Your task to perform on an android device: turn notification dots on Image 0: 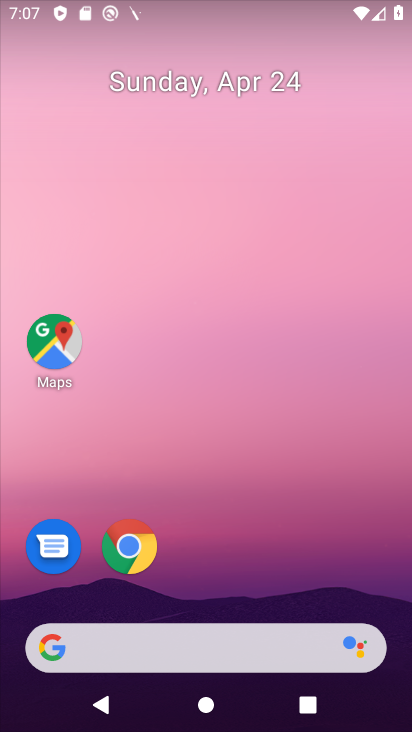
Step 0: drag from (267, 559) to (216, 4)
Your task to perform on an android device: turn notification dots on Image 1: 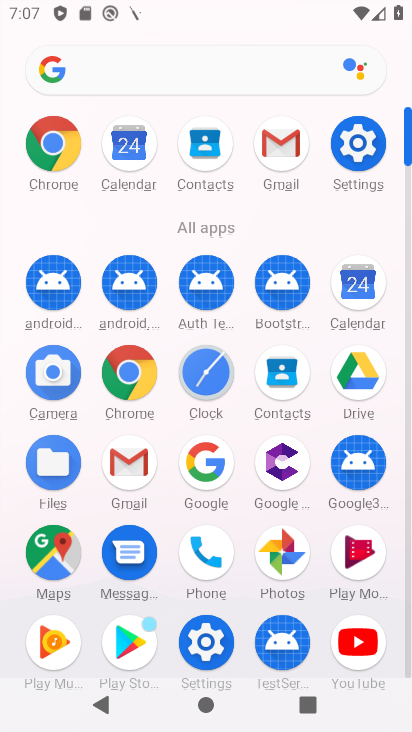
Step 1: click (355, 137)
Your task to perform on an android device: turn notification dots on Image 2: 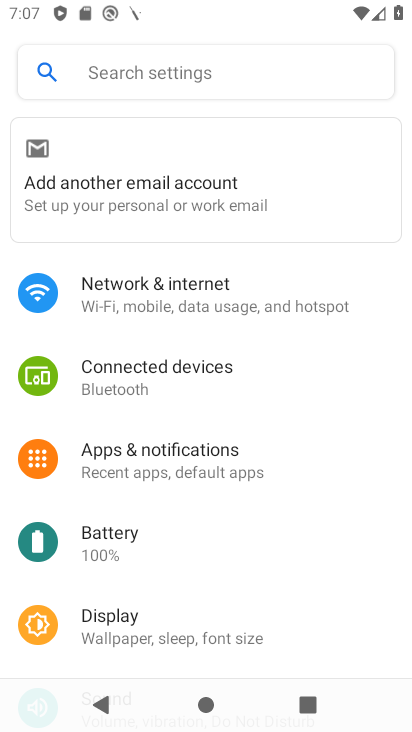
Step 2: click (172, 447)
Your task to perform on an android device: turn notification dots on Image 3: 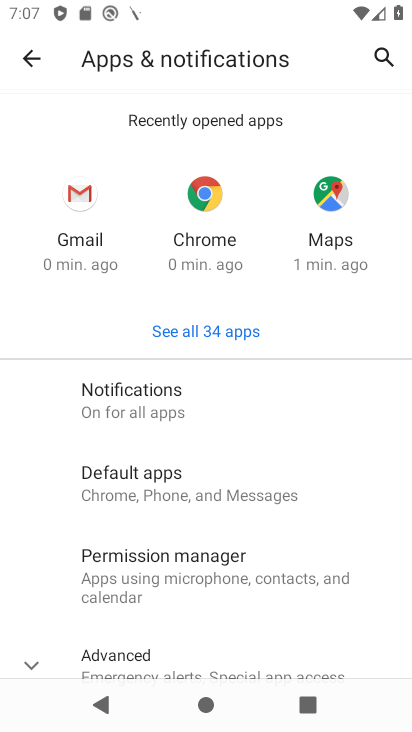
Step 3: click (135, 389)
Your task to perform on an android device: turn notification dots on Image 4: 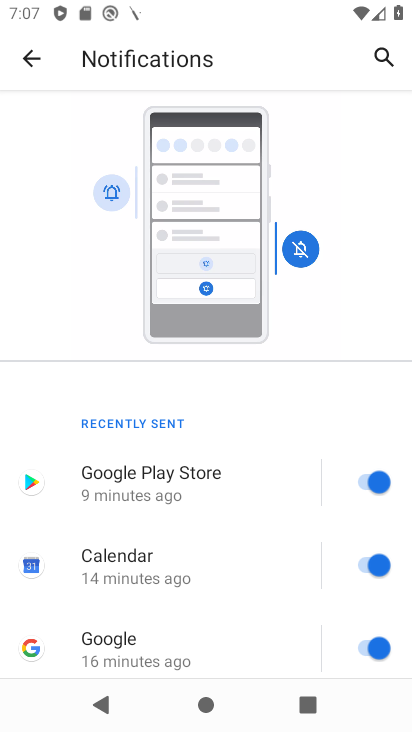
Step 4: drag from (213, 617) to (145, 250)
Your task to perform on an android device: turn notification dots on Image 5: 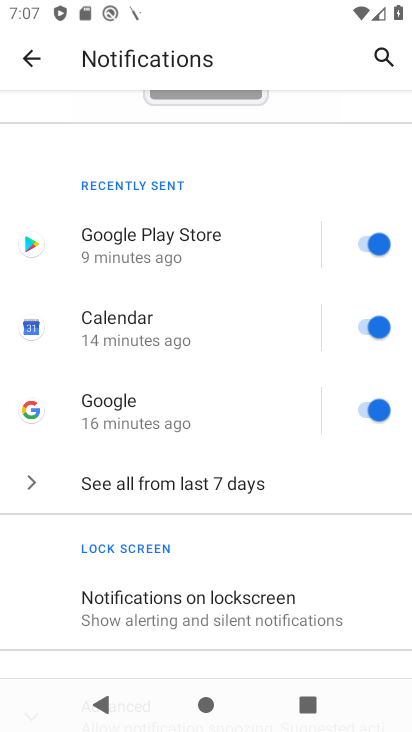
Step 5: drag from (211, 529) to (89, 38)
Your task to perform on an android device: turn notification dots on Image 6: 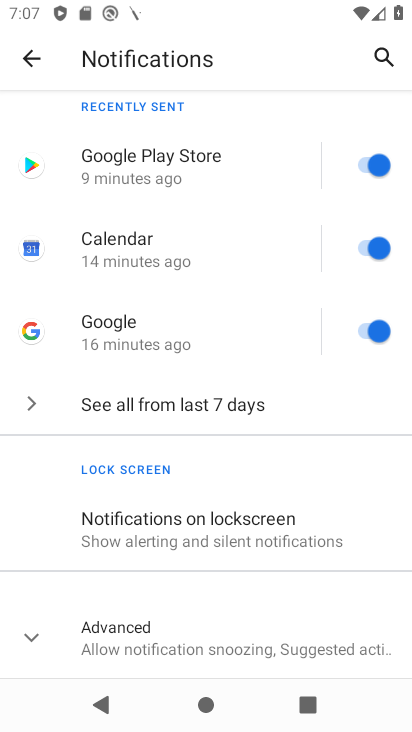
Step 6: click (27, 634)
Your task to perform on an android device: turn notification dots on Image 7: 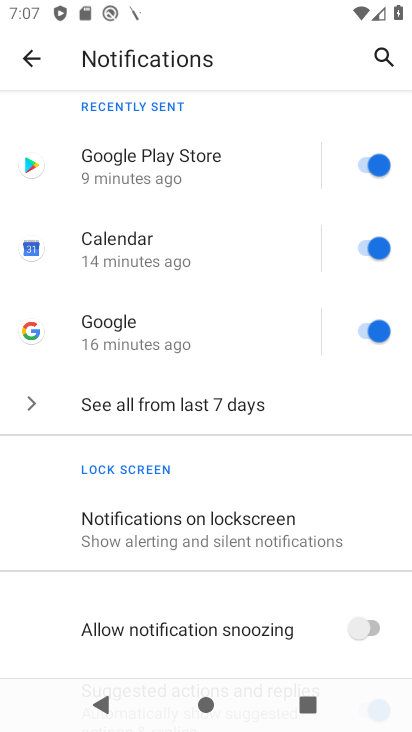
Step 7: task complete